Your task to perform on an android device: Add panasonic triple a to the cart on ebay Image 0: 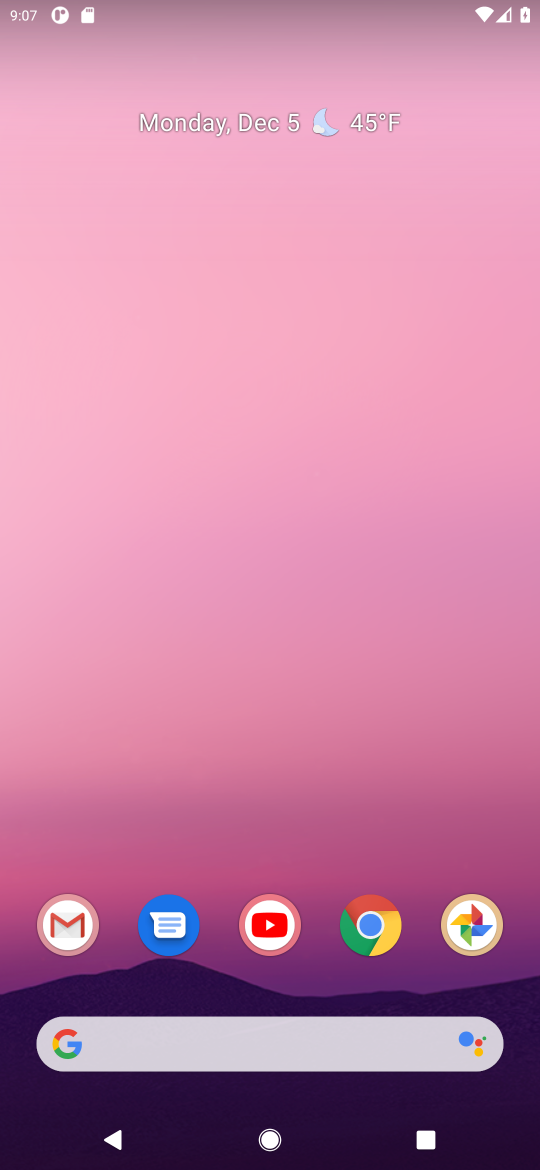
Step 0: click (368, 934)
Your task to perform on an android device: Add panasonic triple a to the cart on ebay Image 1: 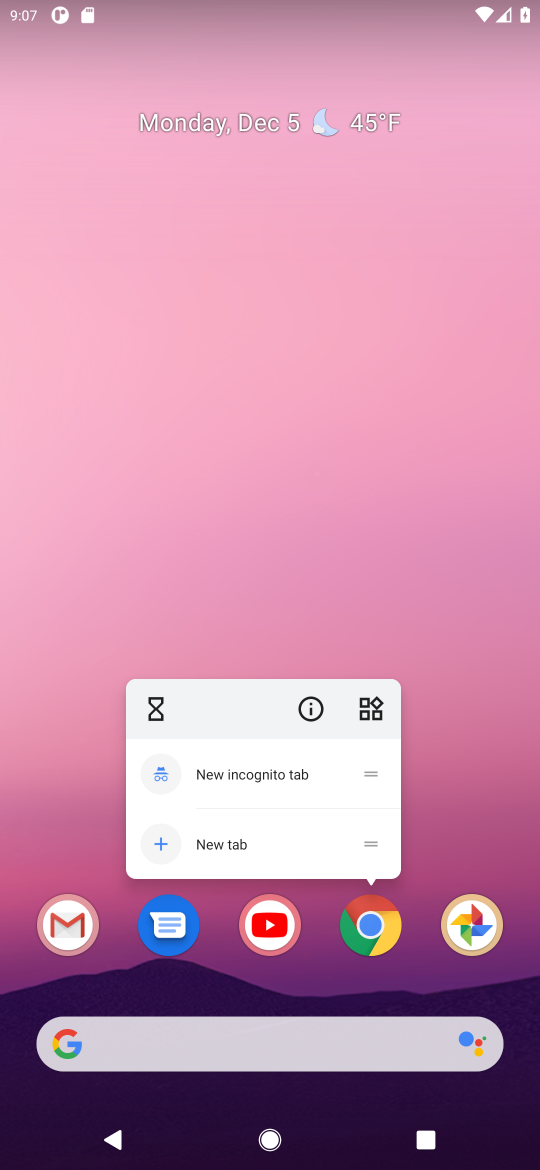
Step 1: click (368, 934)
Your task to perform on an android device: Add panasonic triple a to the cart on ebay Image 2: 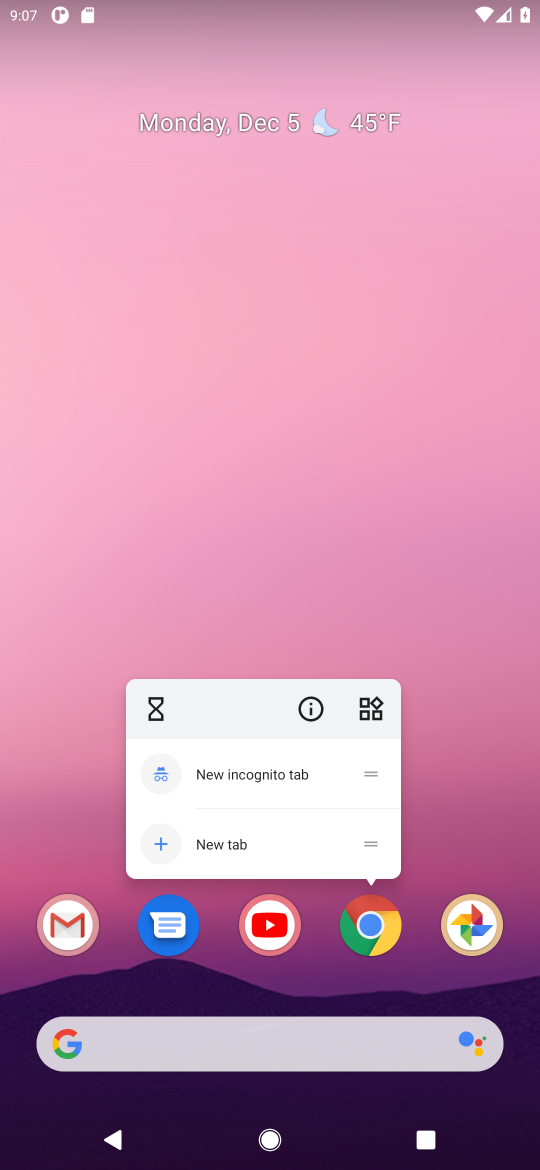
Step 2: click (385, 929)
Your task to perform on an android device: Add panasonic triple a to the cart on ebay Image 3: 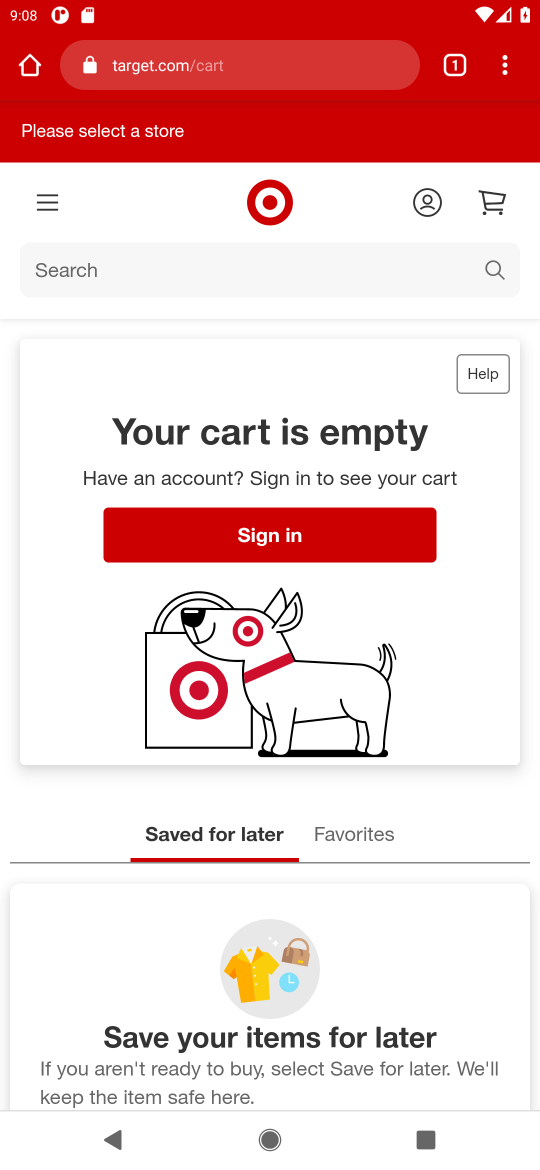
Step 3: click (220, 80)
Your task to perform on an android device: Add panasonic triple a to the cart on ebay Image 4: 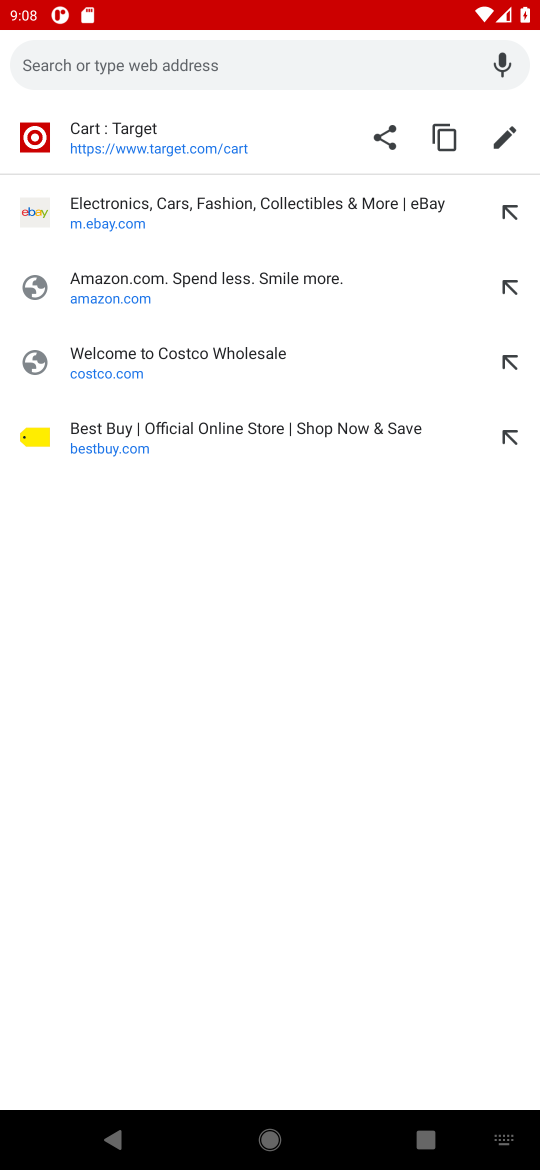
Step 4: click (108, 199)
Your task to perform on an android device: Add panasonic triple a to the cart on ebay Image 5: 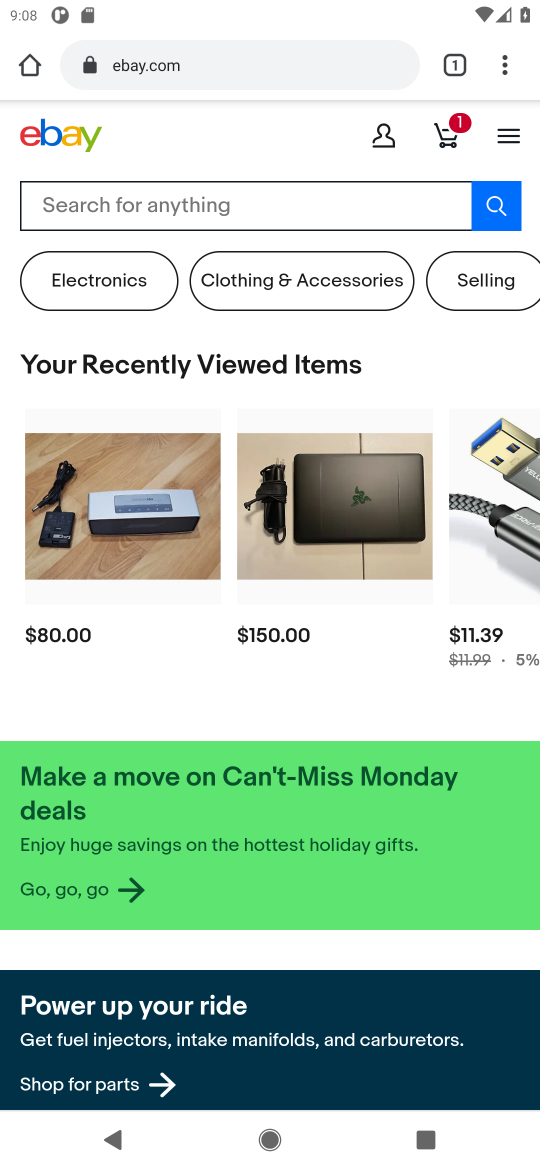
Step 5: click (99, 214)
Your task to perform on an android device: Add panasonic triple a to the cart on ebay Image 6: 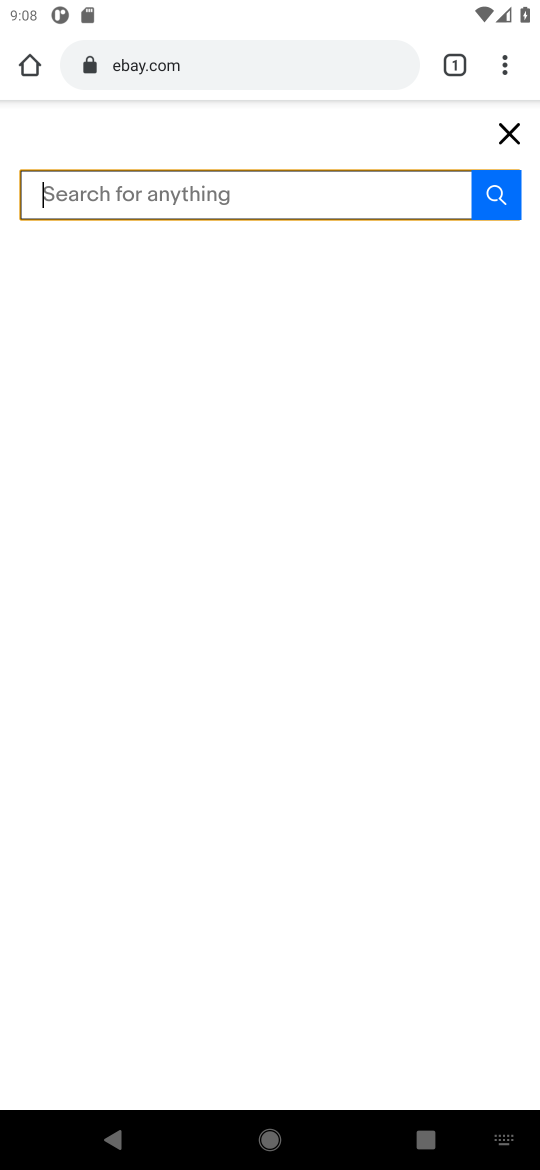
Step 6: type "panasonic triple a"
Your task to perform on an android device: Add panasonic triple a to the cart on ebay Image 7: 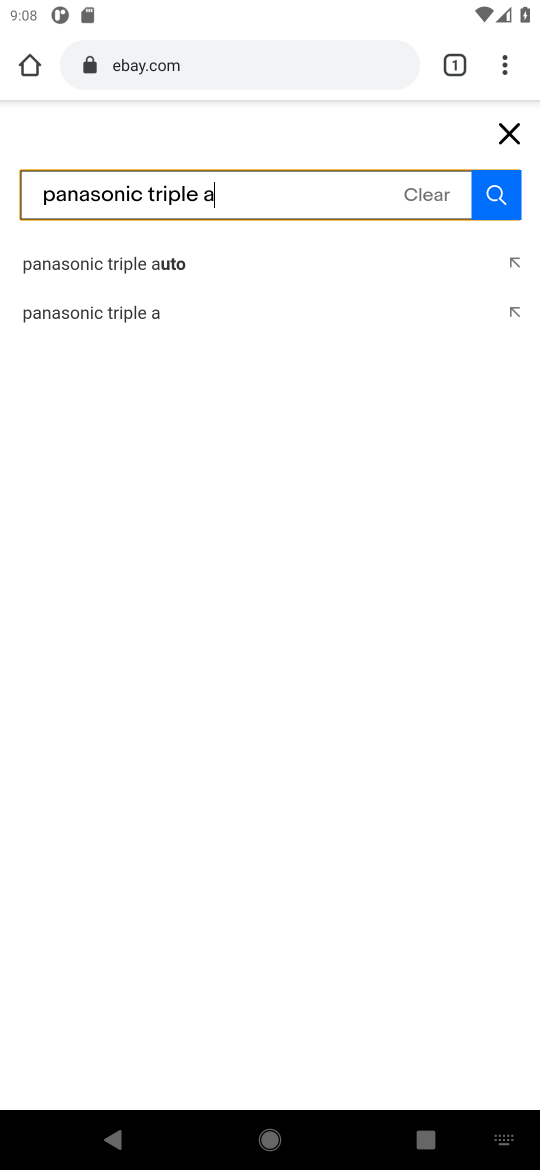
Step 7: click (490, 199)
Your task to perform on an android device: Add panasonic triple a to the cart on ebay Image 8: 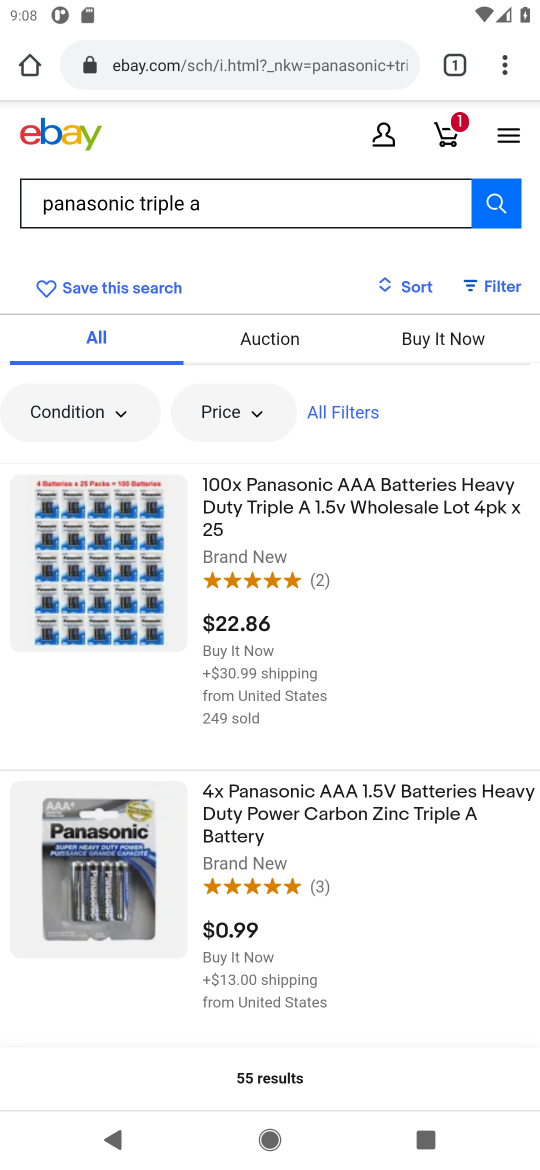
Step 8: click (251, 509)
Your task to perform on an android device: Add panasonic triple a to the cart on ebay Image 9: 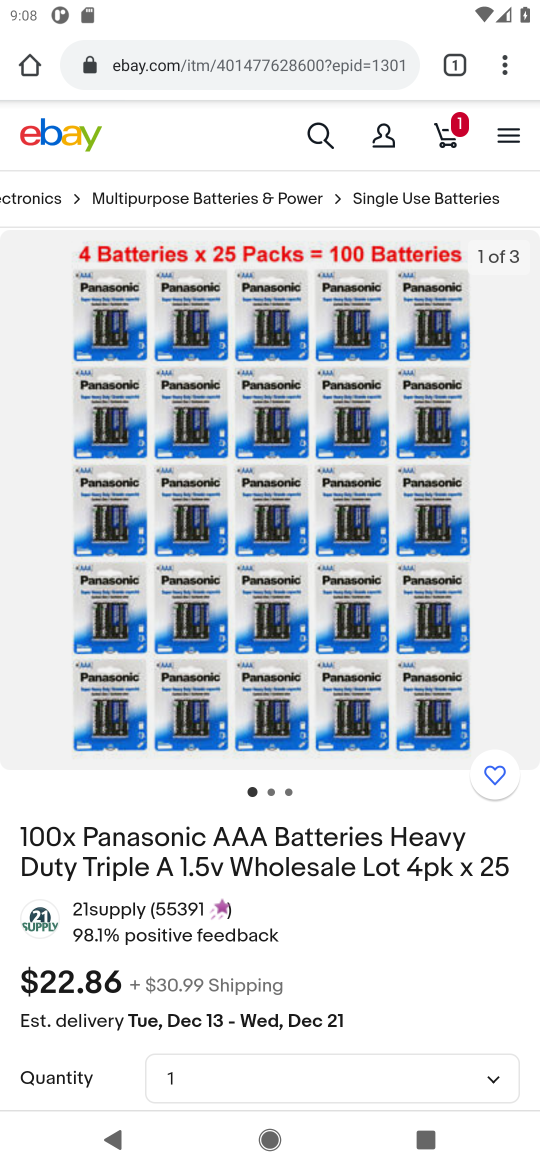
Step 9: drag from (374, 909) to (313, 334)
Your task to perform on an android device: Add panasonic triple a to the cart on ebay Image 10: 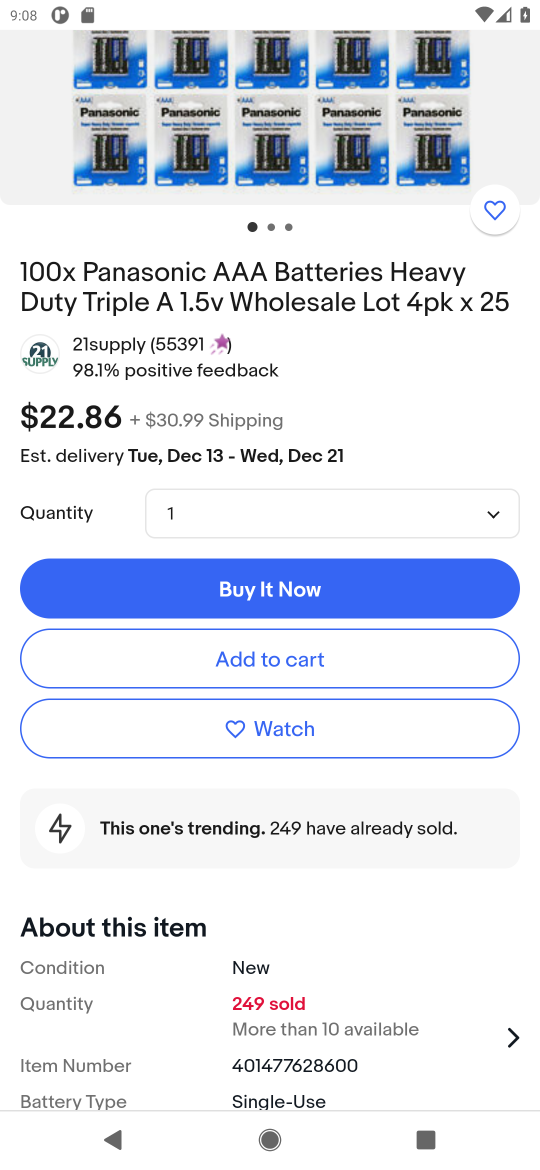
Step 10: click (246, 663)
Your task to perform on an android device: Add panasonic triple a to the cart on ebay Image 11: 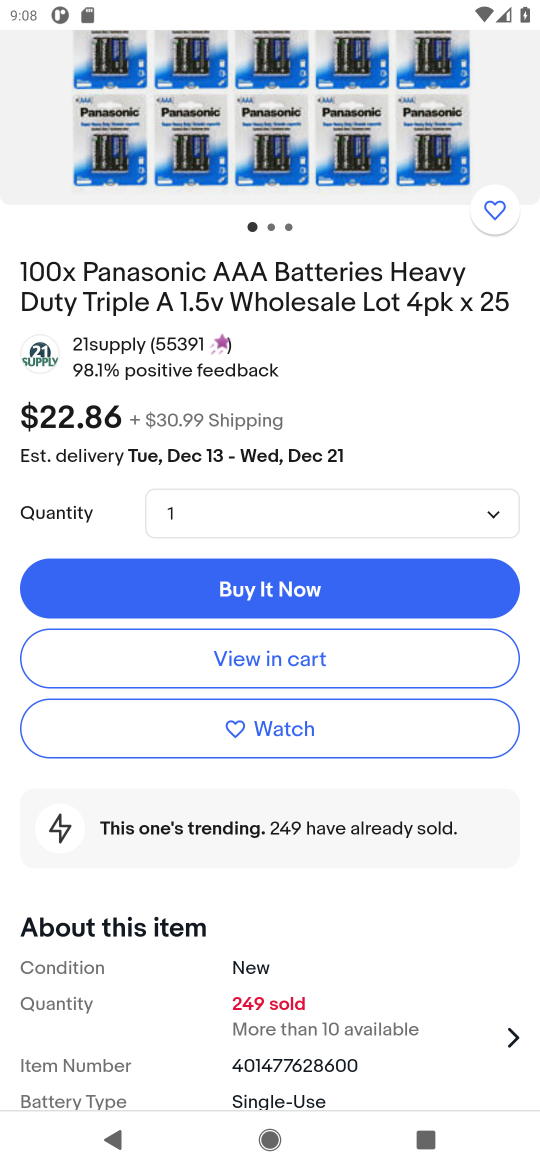
Step 11: task complete